Your task to perform on an android device: all mails in gmail Image 0: 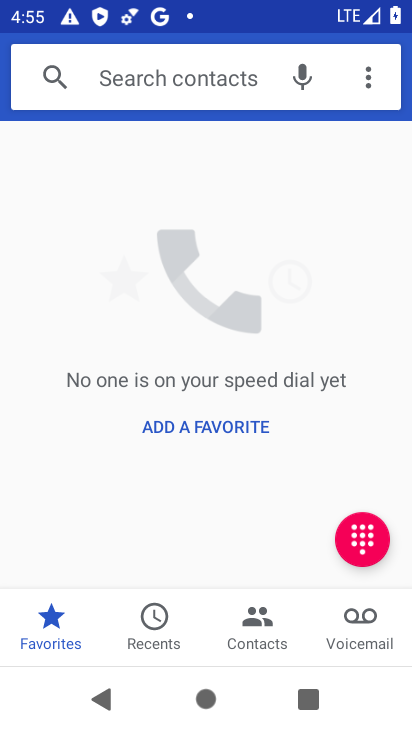
Step 0: press home button
Your task to perform on an android device: all mails in gmail Image 1: 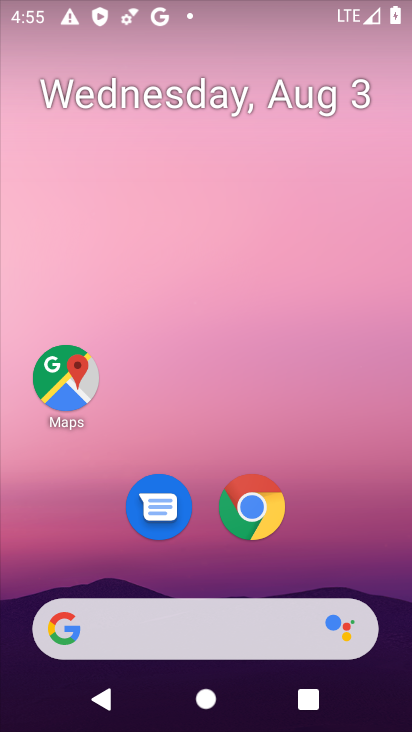
Step 1: drag from (321, 368) to (318, 4)
Your task to perform on an android device: all mails in gmail Image 2: 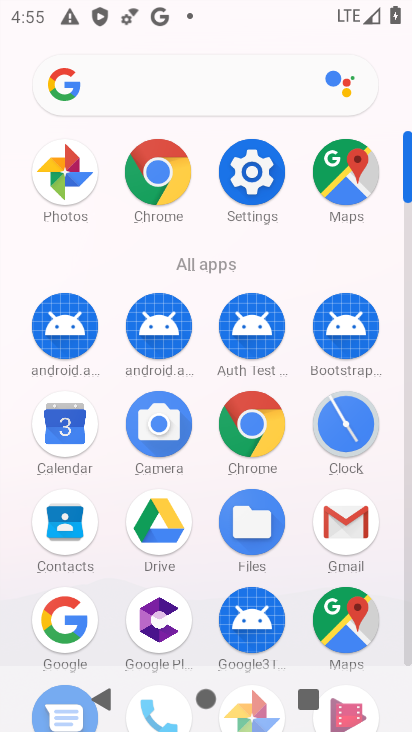
Step 2: drag from (303, 558) to (335, 164)
Your task to perform on an android device: all mails in gmail Image 3: 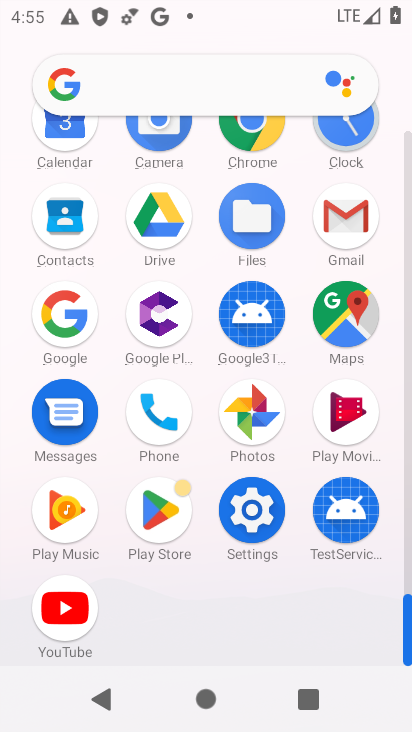
Step 3: click (337, 219)
Your task to perform on an android device: all mails in gmail Image 4: 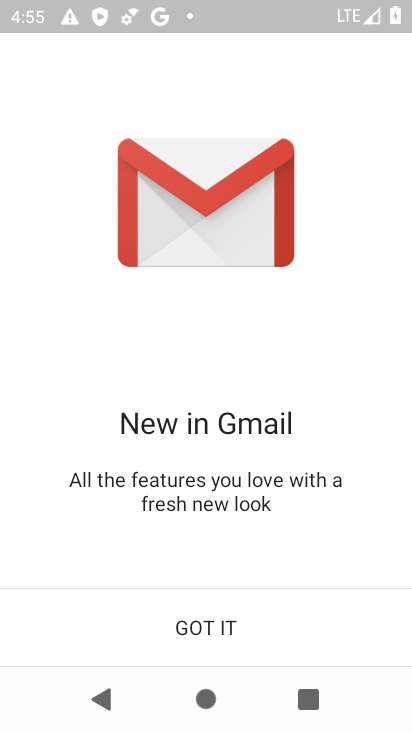
Step 4: click (261, 638)
Your task to perform on an android device: all mails in gmail Image 5: 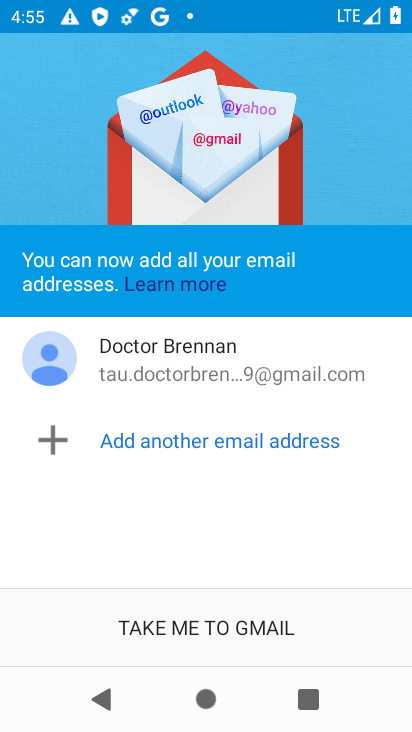
Step 5: click (261, 638)
Your task to perform on an android device: all mails in gmail Image 6: 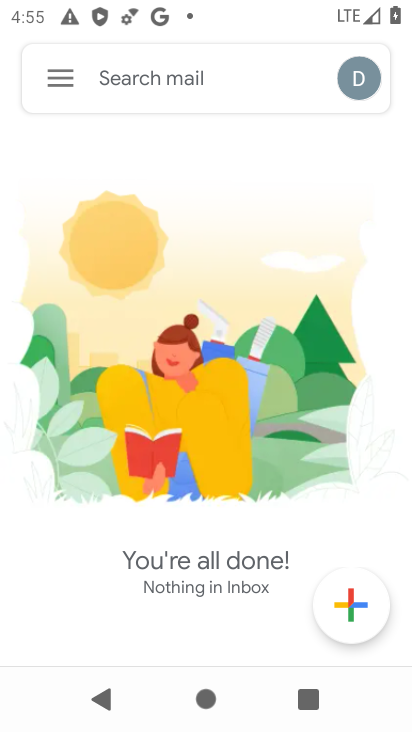
Step 6: click (72, 76)
Your task to perform on an android device: all mails in gmail Image 7: 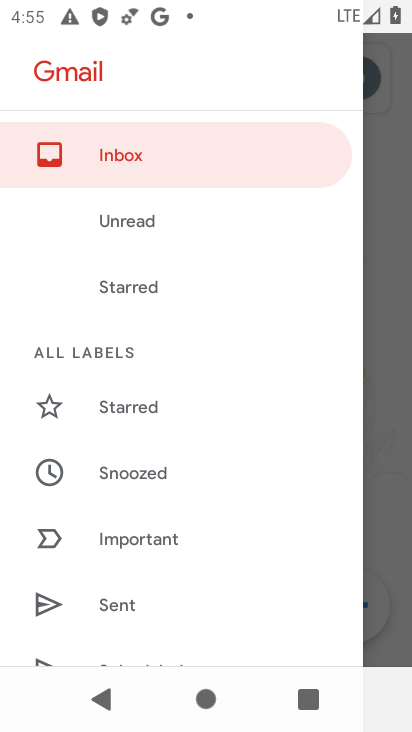
Step 7: drag from (238, 619) to (294, 143)
Your task to perform on an android device: all mails in gmail Image 8: 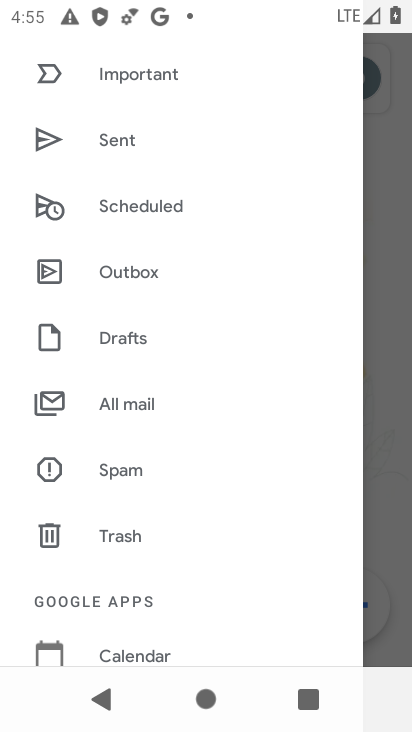
Step 8: click (146, 411)
Your task to perform on an android device: all mails in gmail Image 9: 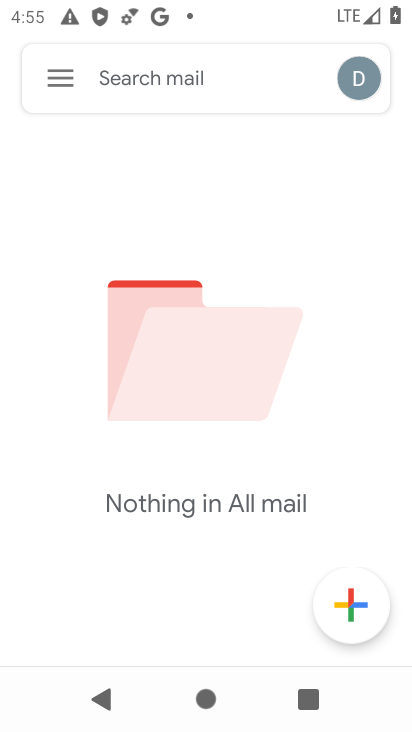
Step 9: task complete